Your task to perform on an android device: Go to network settings Image 0: 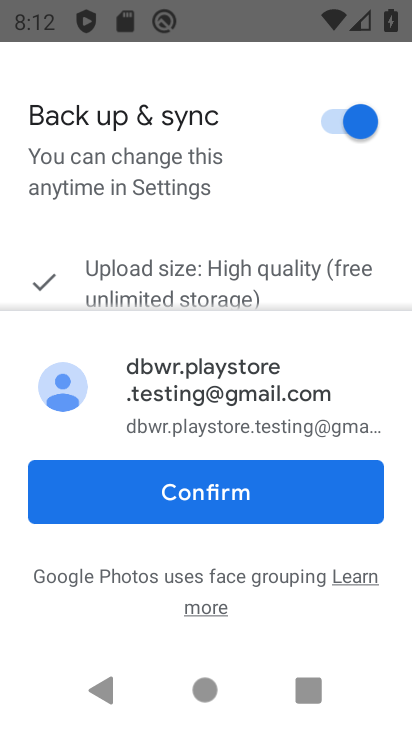
Step 0: press home button
Your task to perform on an android device: Go to network settings Image 1: 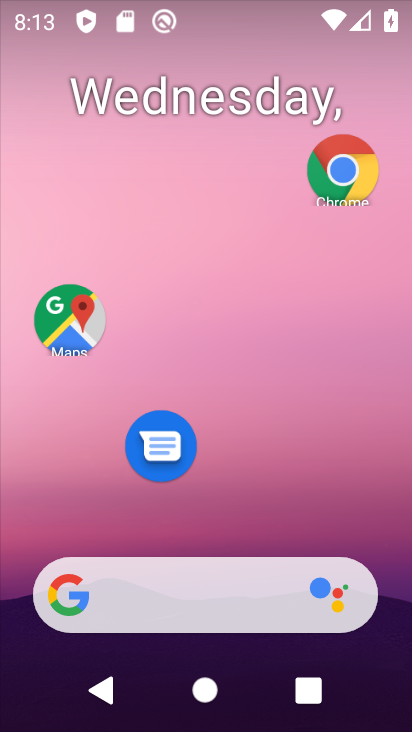
Step 1: drag from (331, 504) to (318, 217)
Your task to perform on an android device: Go to network settings Image 2: 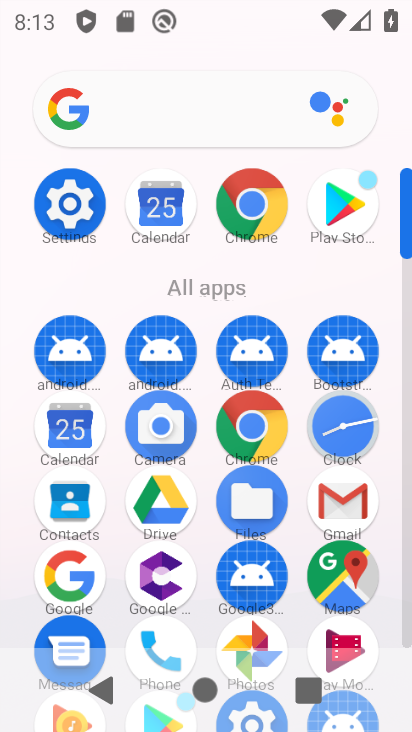
Step 2: click (83, 213)
Your task to perform on an android device: Go to network settings Image 3: 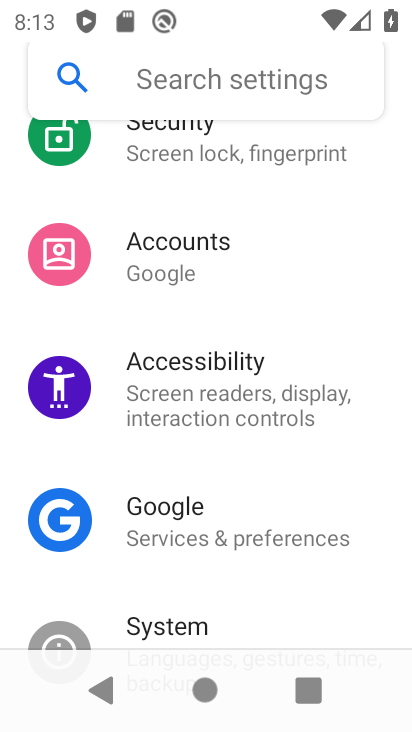
Step 3: drag from (176, 165) to (169, 507)
Your task to perform on an android device: Go to network settings Image 4: 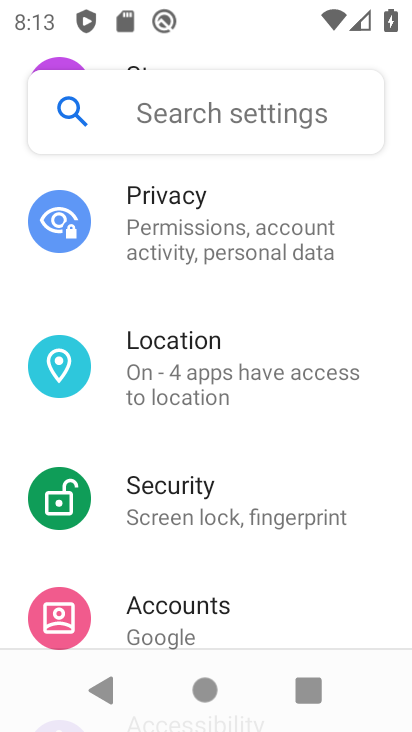
Step 4: drag from (202, 226) to (176, 478)
Your task to perform on an android device: Go to network settings Image 5: 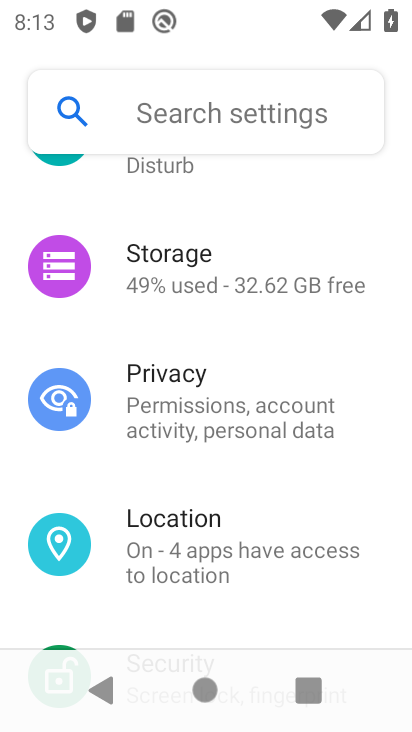
Step 5: drag from (180, 249) to (190, 564)
Your task to perform on an android device: Go to network settings Image 6: 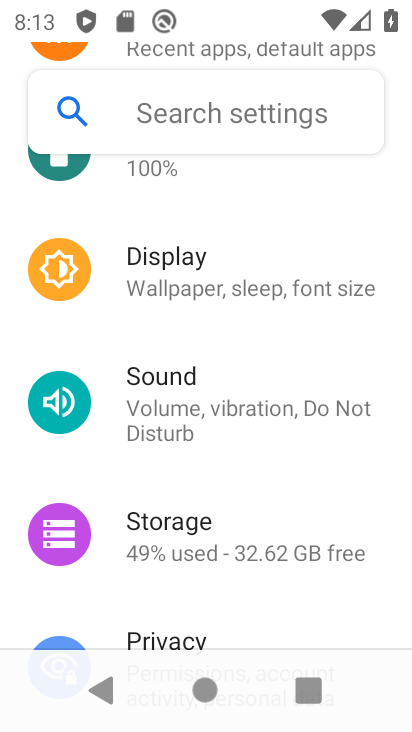
Step 6: drag from (203, 239) to (172, 650)
Your task to perform on an android device: Go to network settings Image 7: 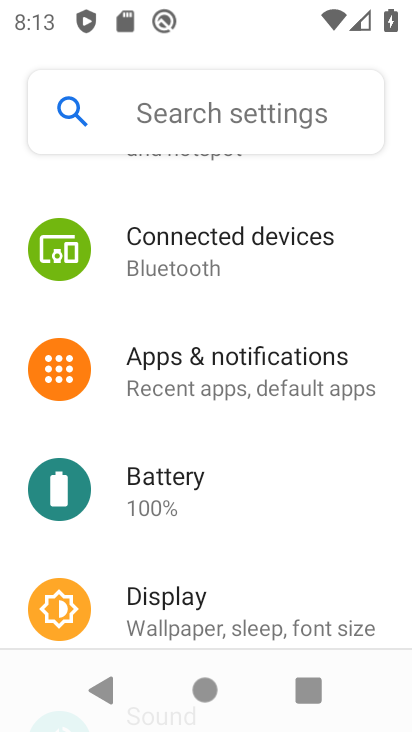
Step 7: drag from (195, 288) to (258, 728)
Your task to perform on an android device: Go to network settings Image 8: 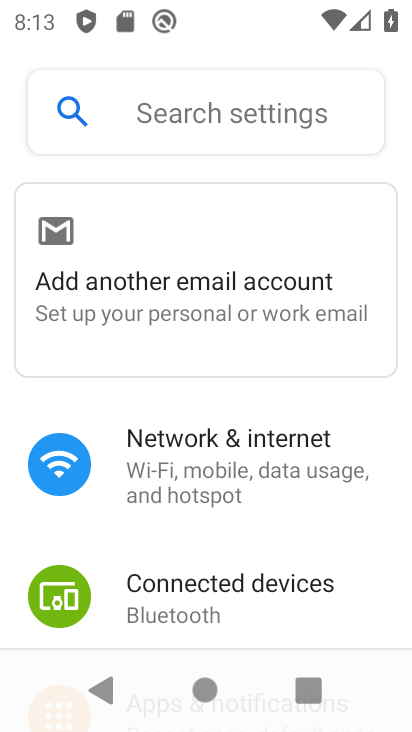
Step 8: click (165, 501)
Your task to perform on an android device: Go to network settings Image 9: 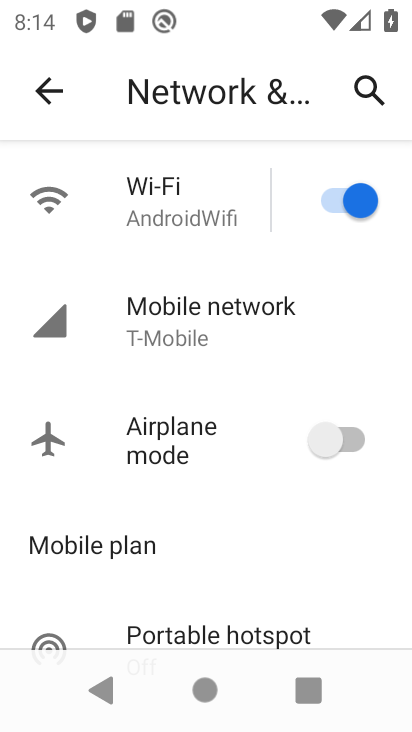
Step 9: task complete